Your task to perform on an android device: Go to battery settings Image 0: 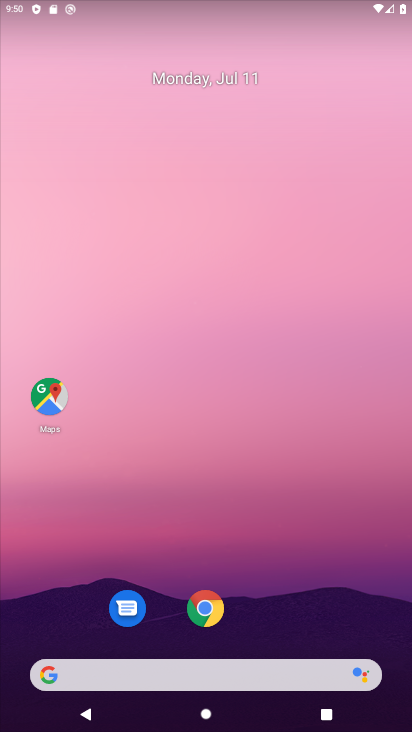
Step 0: drag from (29, 719) to (184, 227)
Your task to perform on an android device: Go to battery settings Image 1: 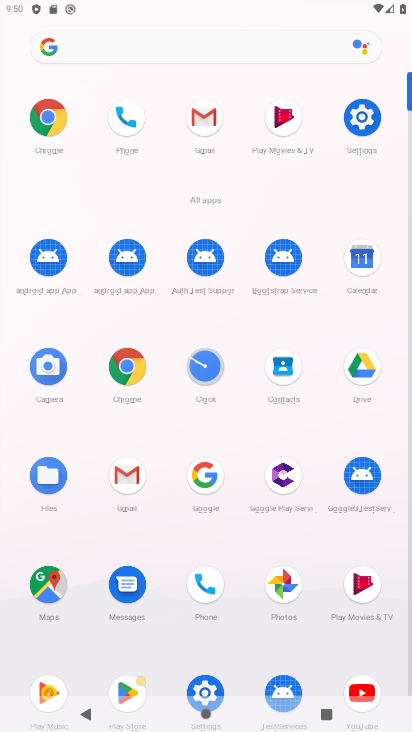
Step 1: click (207, 687)
Your task to perform on an android device: Go to battery settings Image 2: 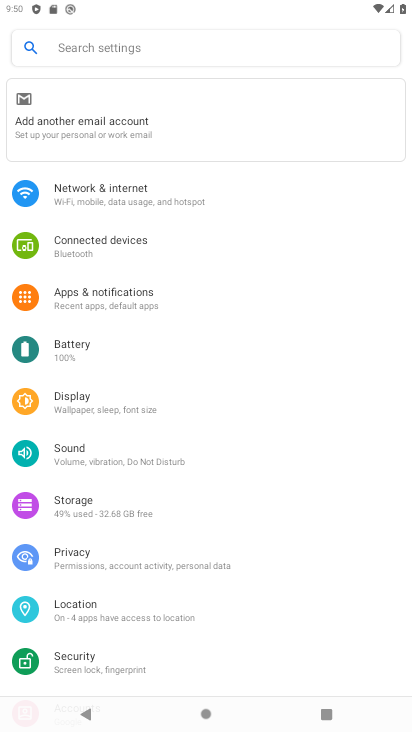
Step 2: click (84, 354)
Your task to perform on an android device: Go to battery settings Image 3: 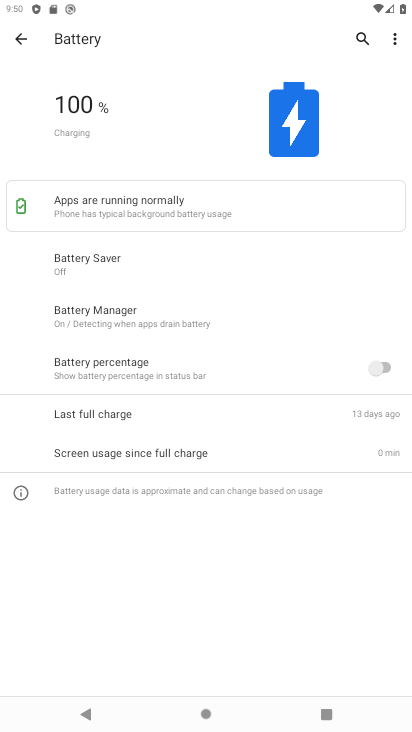
Step 3: task complete